Your task to perform on an android device: change text size in settings app Image 0: 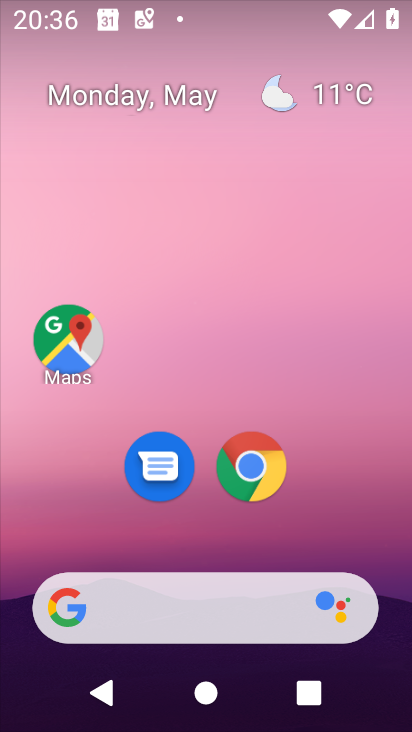
Step 0: drag from (313, 525) to (329, 206)
Your task to perform on an android device: change text size in settings app Image 1: 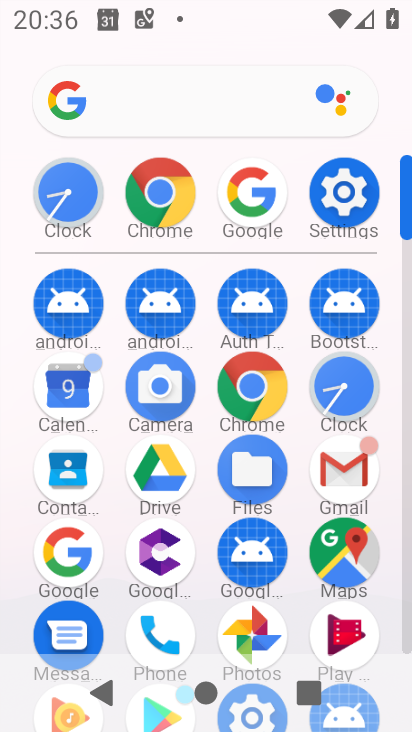
Step 1: click (358, 182)
Your task to perform on an android device: change text size in settings app Image 2: 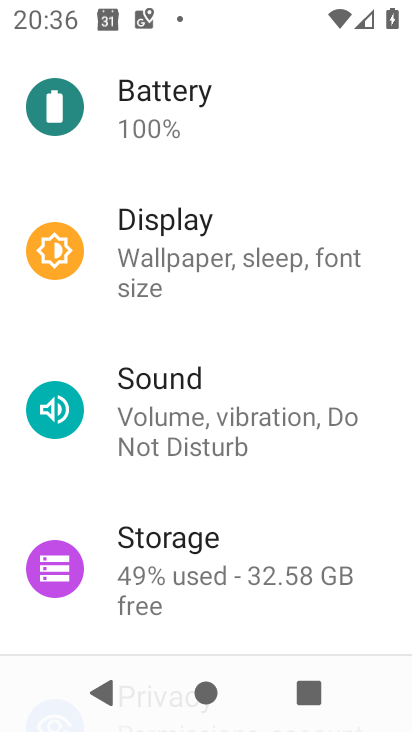
Step 2: drag from (211, 519) to (281, 41)
Your task to perform on an android device: change text size in settings app Image 3: 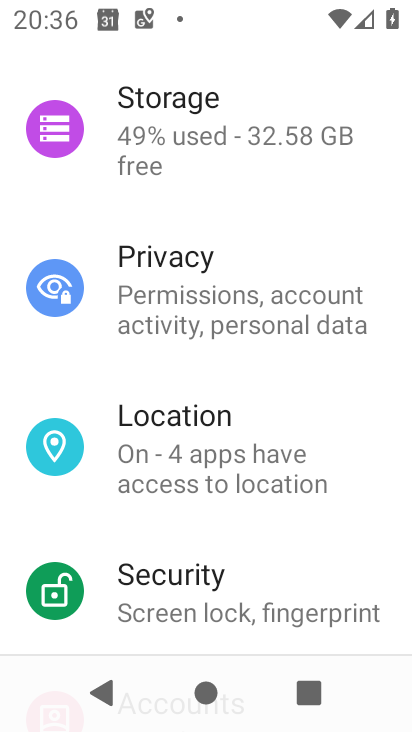
Step 3: drag from (246, 579) to (306, 102)
Your task to perform on an android device: change text size in settings app Image 4: 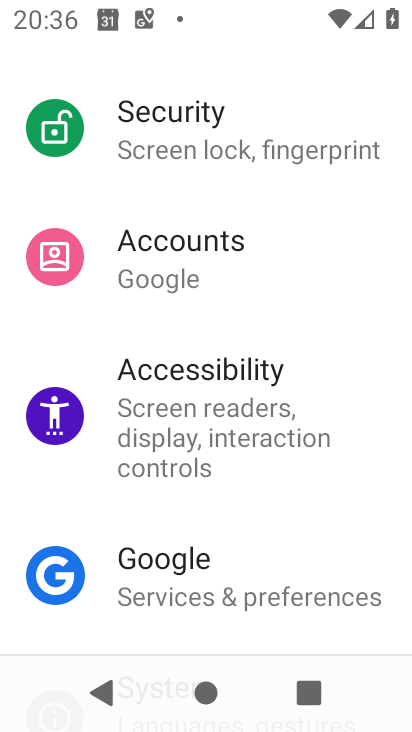
Step 4: click (192, 378)
Your task to perform on an android device: change text size in settings app Image 5: 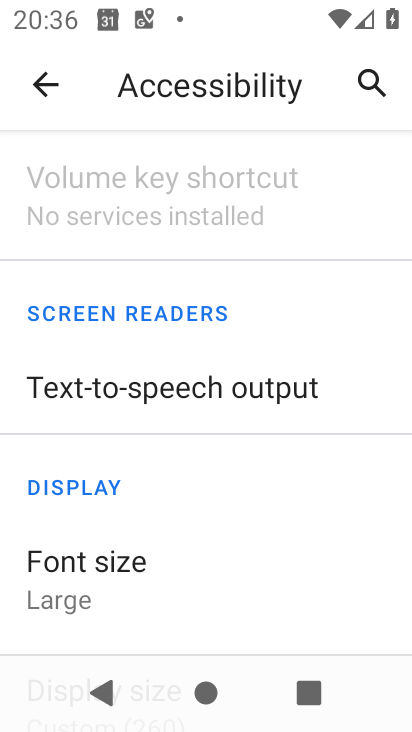
Step 5: click (100, 577)
Your task to perform on an android device: change text size in settings app Image 6: 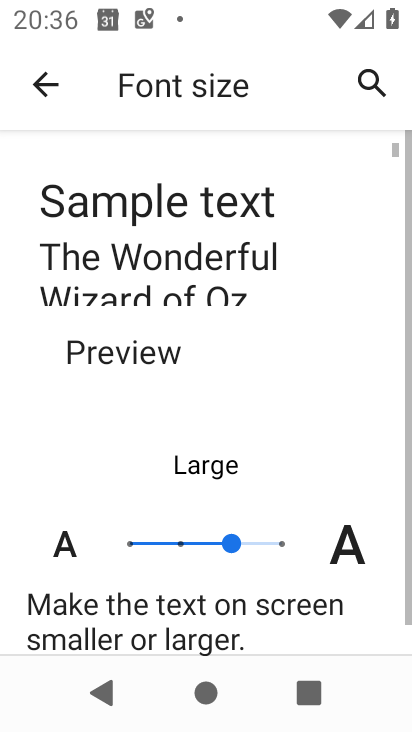
Step 6: click (174, 545)
Your task to perform on an android device: change text size in settings app Image 7: 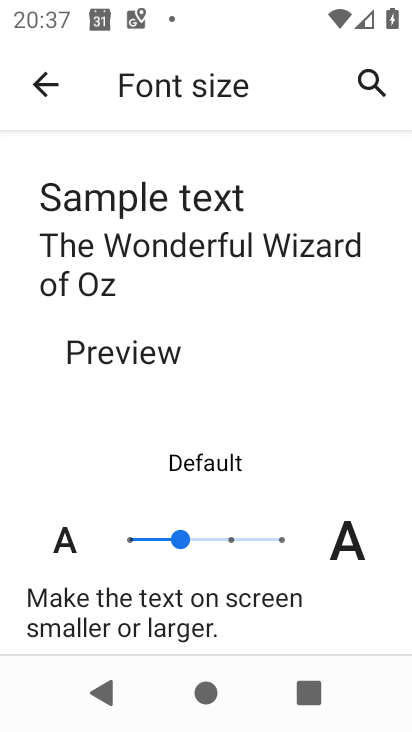
Step 7: task complete